Your task to perform on an android device: What's the weather going to be tomorrow? Image 0: 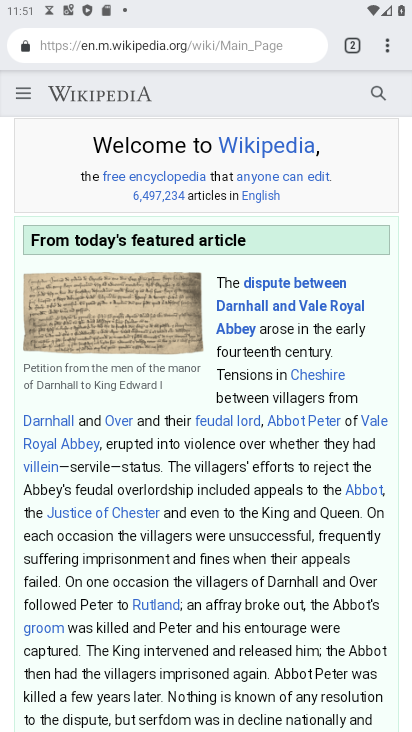
Step 0: press home button
Your task to perform on an android device: What's the weather going to be tomorrow? Image 1: 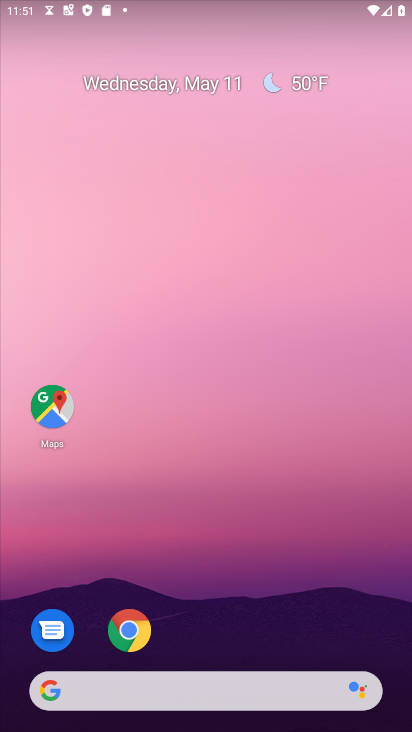
Step 1: click (270, 83)
Your task to perform on an android device: What's the weather going to be tomorrow? Image 2: 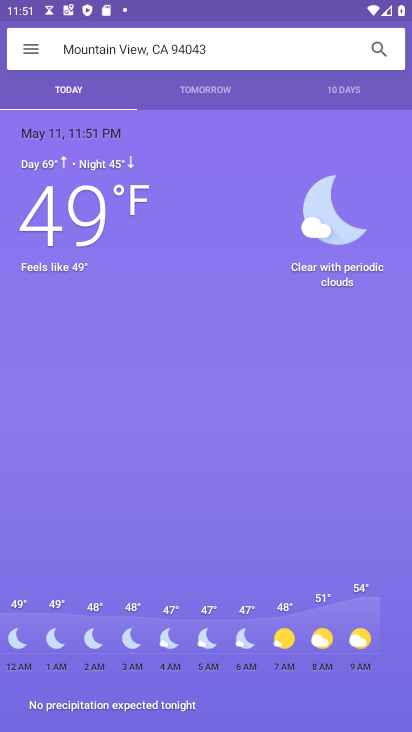
Step 2: click (222, 85)
Your task to perform on an android device: What's the weather going to be tomorrow? Image 3: 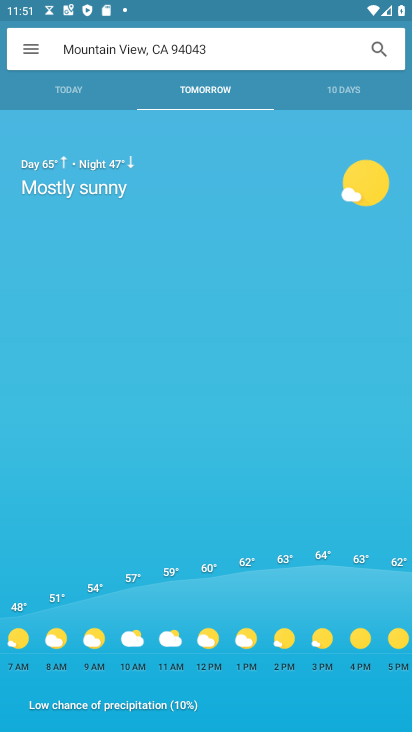
Step 3: task complete